Your task to perform on an android device: turn on improve location accuracy Image 0: 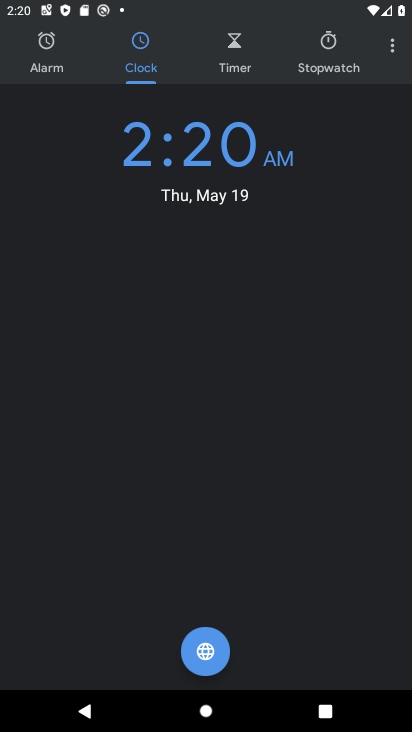
Step 0: press home button
Your task to perform on an android device: turn on improve location accuracy Image 1: 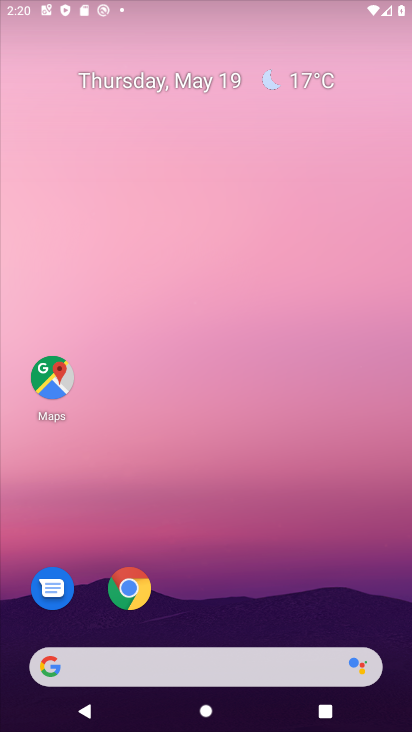
Step 1: drag from (324, 544) to (215, 120)
Your task to perform on an android device: turn on improve location accuracy Image 2: 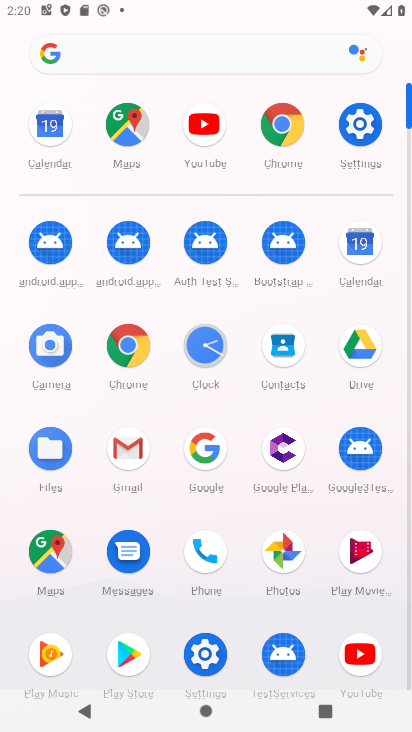
Step 2: click (362, 127)
Your task to perform on an android device: turn on improve location accuracy Image 3: 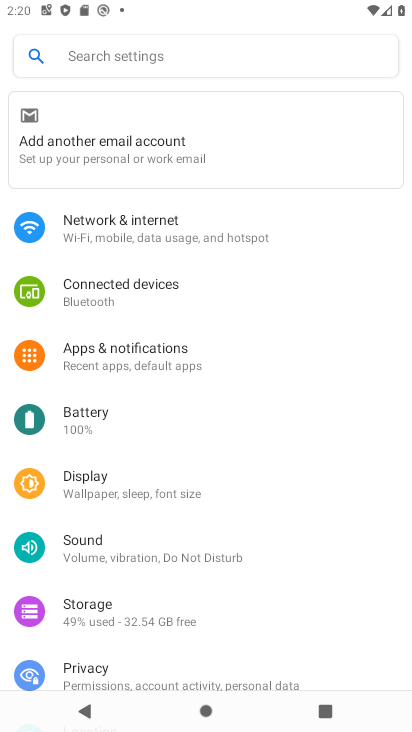
Step 3: drag from (143, 638) to (145, 207)
Your task to perform on an android device: turn on improve location accuracy Image 4: 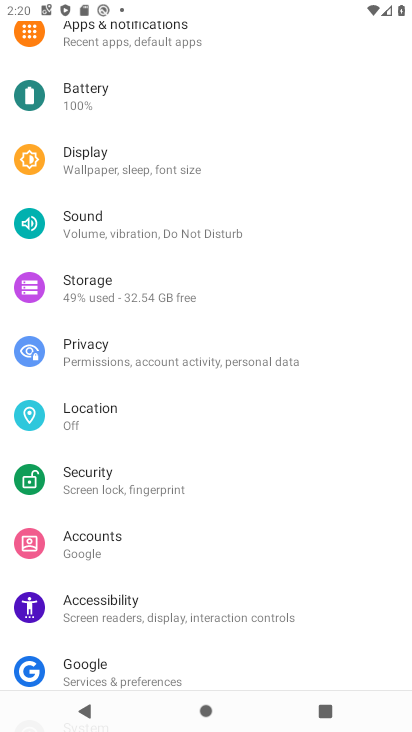
Step 4: click (95, 413)
Your task to perform on an android device: turn on improve location accuracy Image 5: 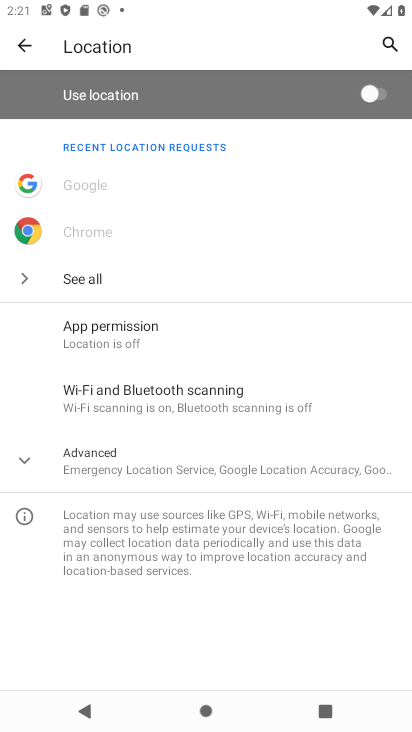
Step 5: click (148, 468)
Your task to perform on an android device: turn on improve location accuracy Image 6: 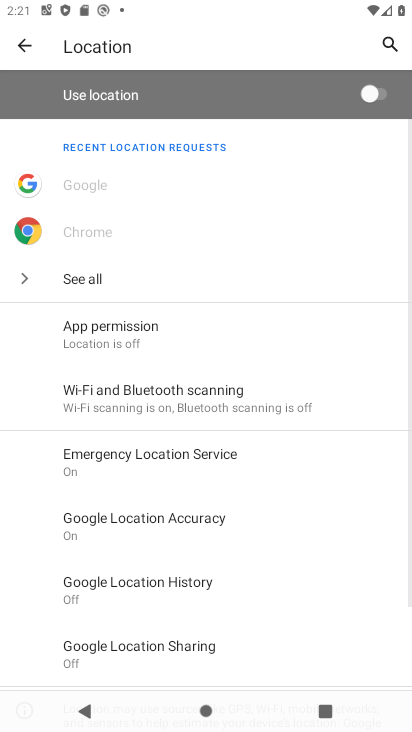
Step 6: click (194, 503)
Your task to perform on an android device: turn on improve location accuracy Image 7: 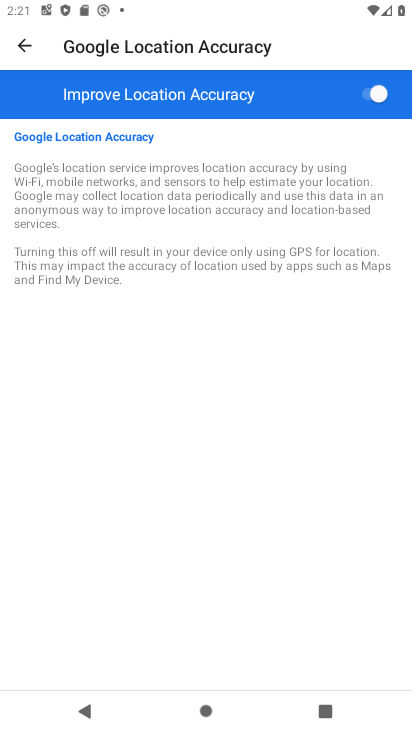
Step 7: click (376, 96)
Your task to perform on an android device: turn on improve location accuracy Image 8: 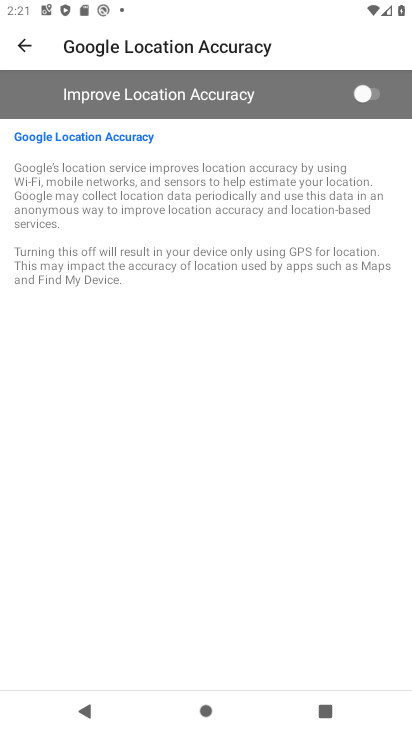
Step 8: task complete